Your task to perform on an android device: Go to eBay Image 0: 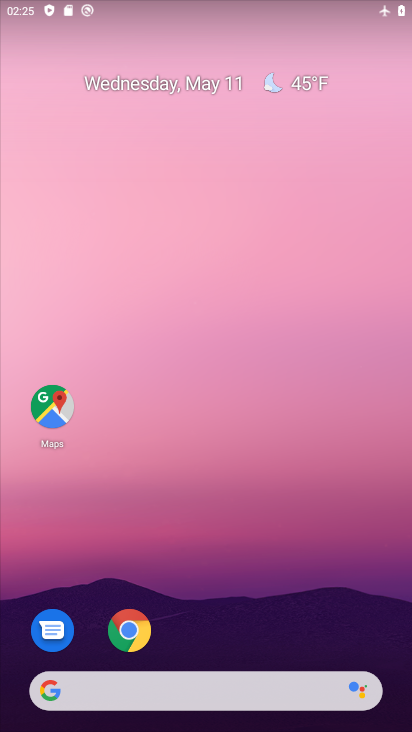
Step 0: click (128, 629)
Your task to perform on an android device: Go to eBay Image 1: 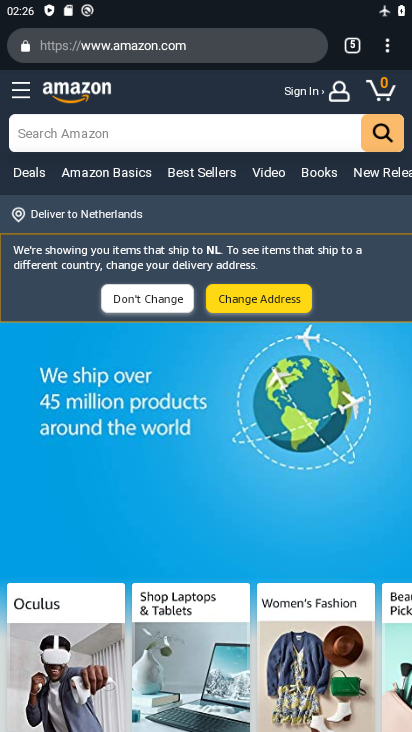
Step 1: click (391, 55)
Your task to perform on an android device: Go to eBay Image 2: 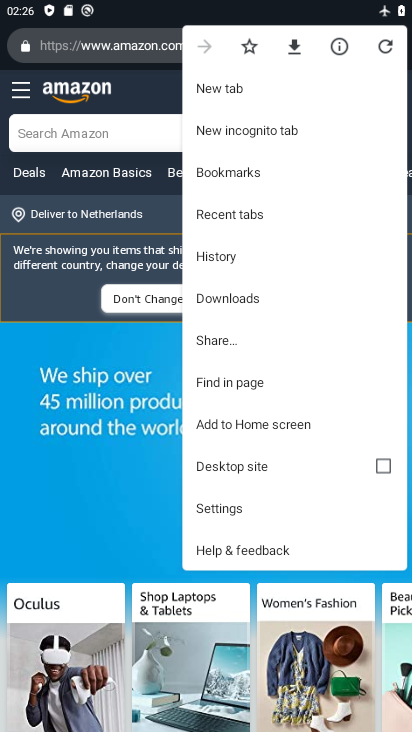
Step 2: click (230, 93)
Your task to perform on an android device: Go to eBay Image 3: 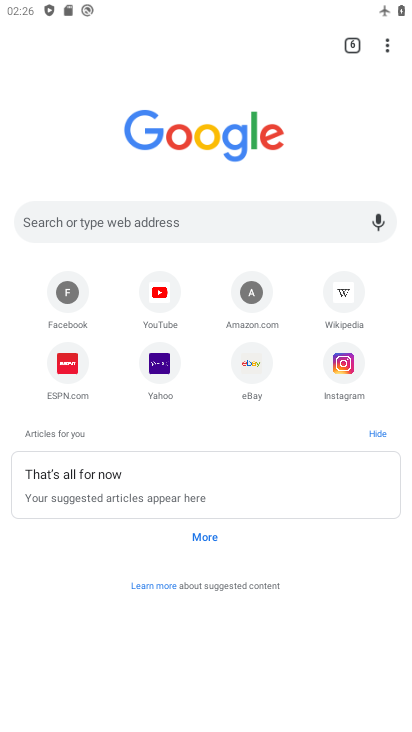
Step 3: click (140, 221)
Your task to perform on an android device: Go to eBay Image 4: 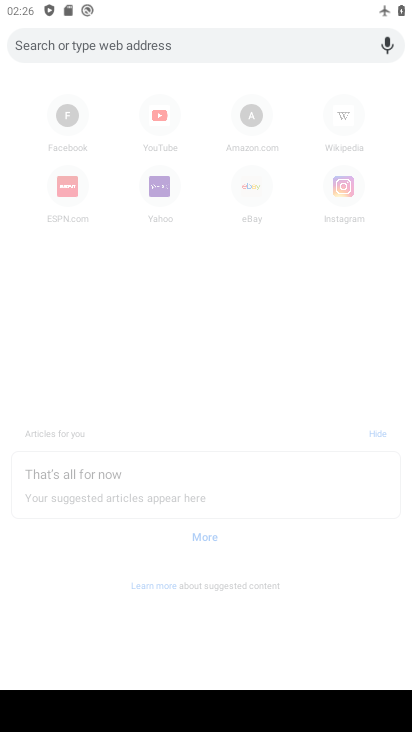
Step 4: type "eBay"
Your task to perform on an android device: Go to eBay Image 5: 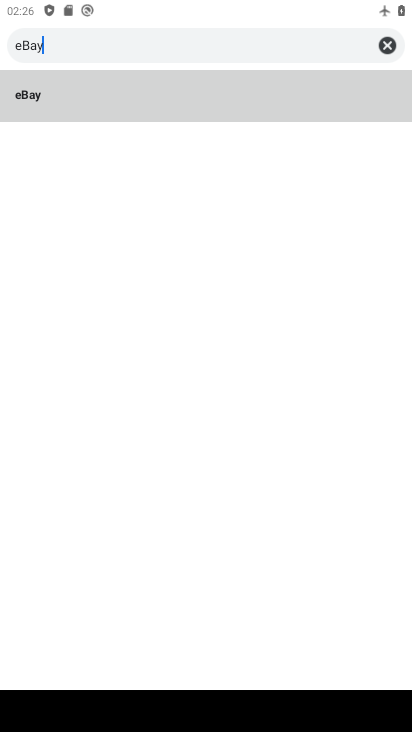
Step 5: click (45, 97)
Your task to perform on an android device: Go to eBay Image 6: 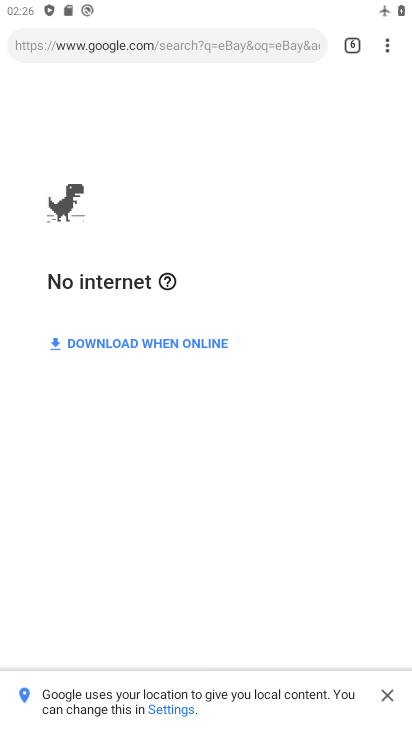
Step 6: task complete